Your task to perform on an android device: Open the calendar and show me this week's events Image 0: 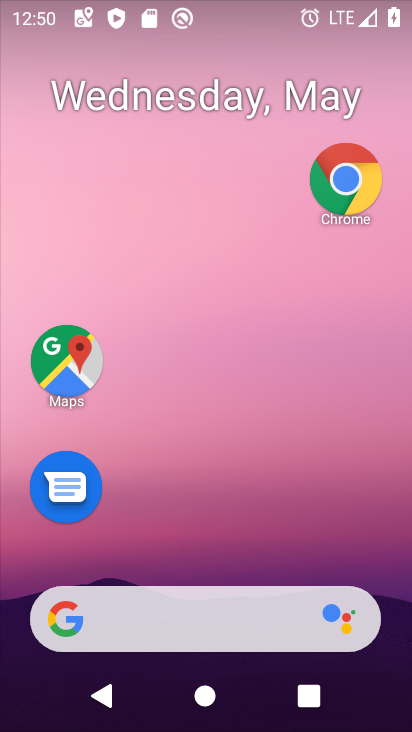
Step 0: drag from (191, 537) to (207, 154)
Your task to perform on an android device: Open the calendar and show me this week's events Image 1: 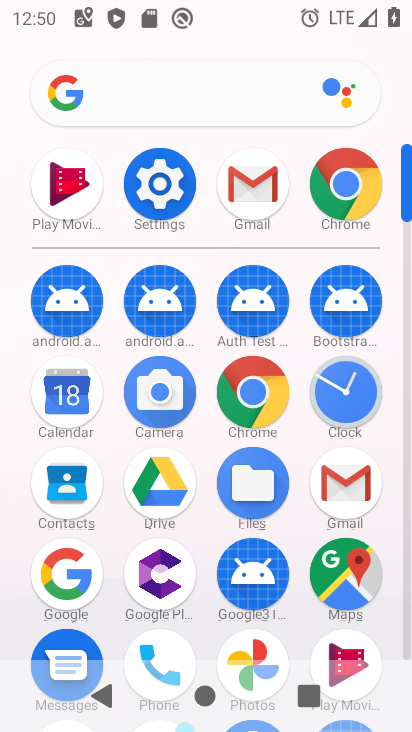
Step 1: click (58, 398)
Your task to perform on an android device: Open the calendar and show me this week's events Image 2: 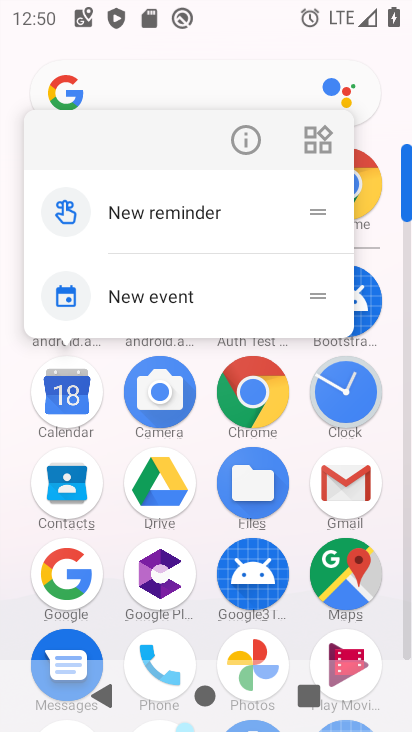
Step 2: click (261, 141)
Your task to perform on an android device: Open the calendar and show me this week's events Image 3: 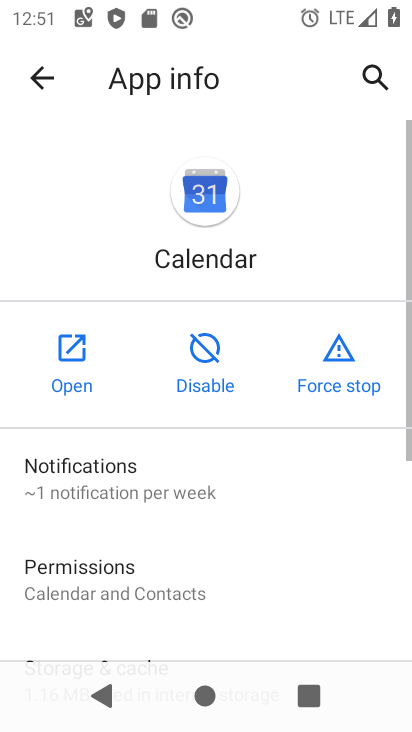
Step 3: click (64, 347)
Your task to perform on an android device: Open the calendar and show me this week's events Image 4: 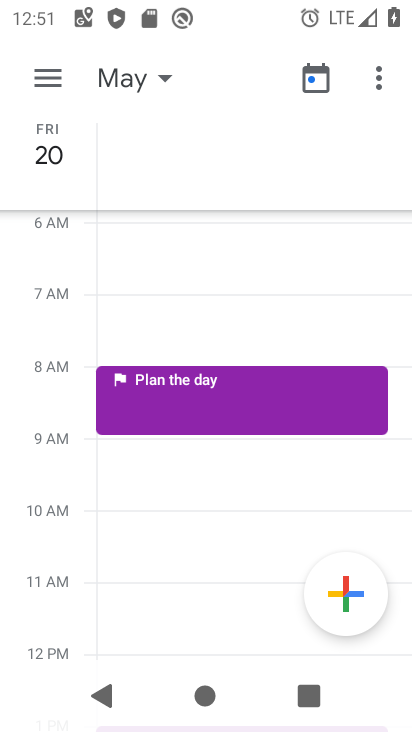
Step 4: click (151, 67)
Your task to perform on an android device: Open the calendar and show me this week's events Image 5: 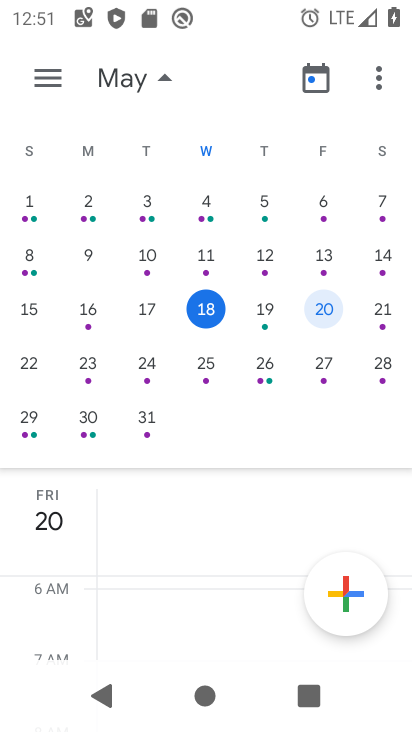
Step 5: click (361, 312)
Your task to perform on an android device: Open the calendar and show me this week's events Image 6: 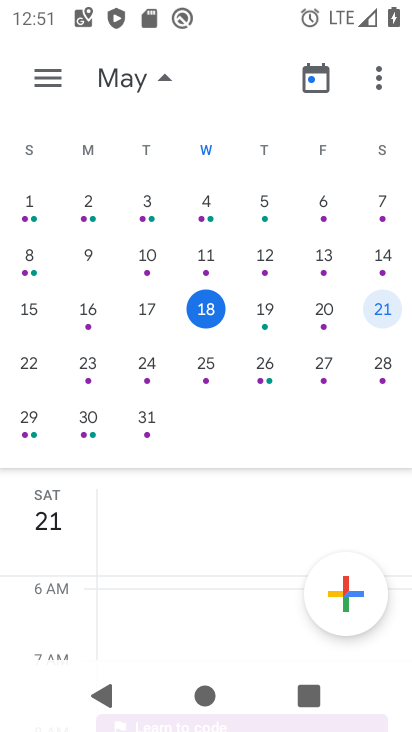
Step 6: task complete